Your task to perform on an android device: What's the weather going to be this weekend? Image 0: 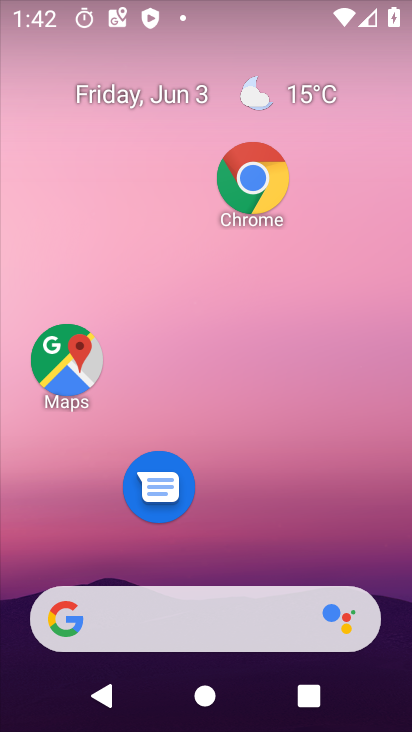
Step 0: press home button
Your task to perform on an android device: What's the weather going to be this weekend? Image 1: 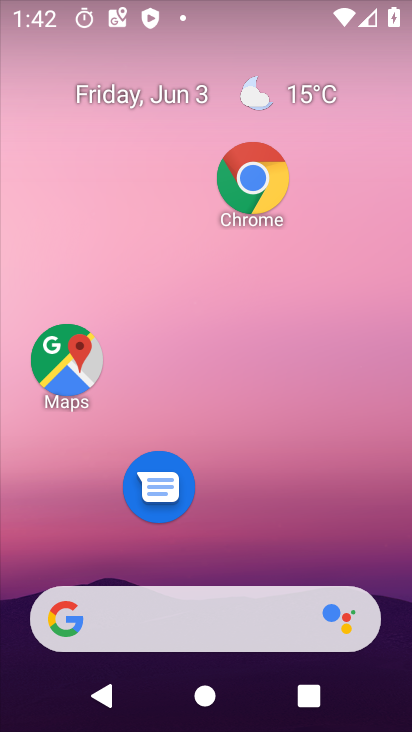
Step 1: click (308, 88)
Your task to perform on an android device: What's the weather going to be this weekend? Image 2: 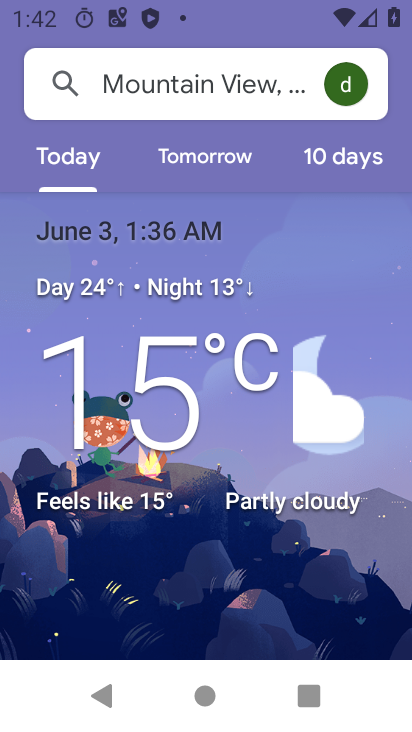
Step 2: click (348, 170)
Your task to perform on an android device: What's the weather going to be this weekend? Image 3: 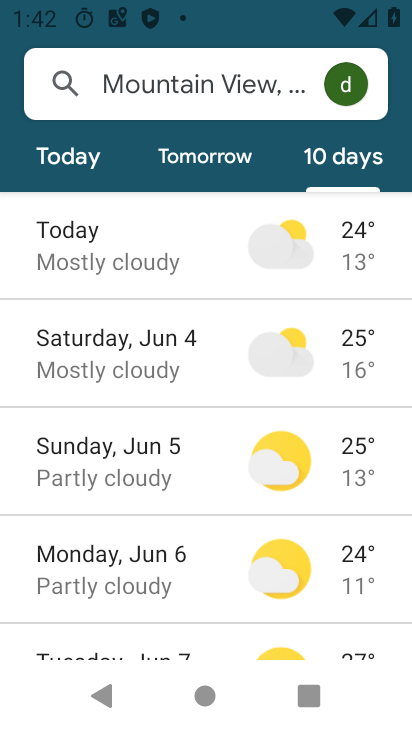
Step 3: task complete